Your task to perform on an android device: Open the web browser Image 0: 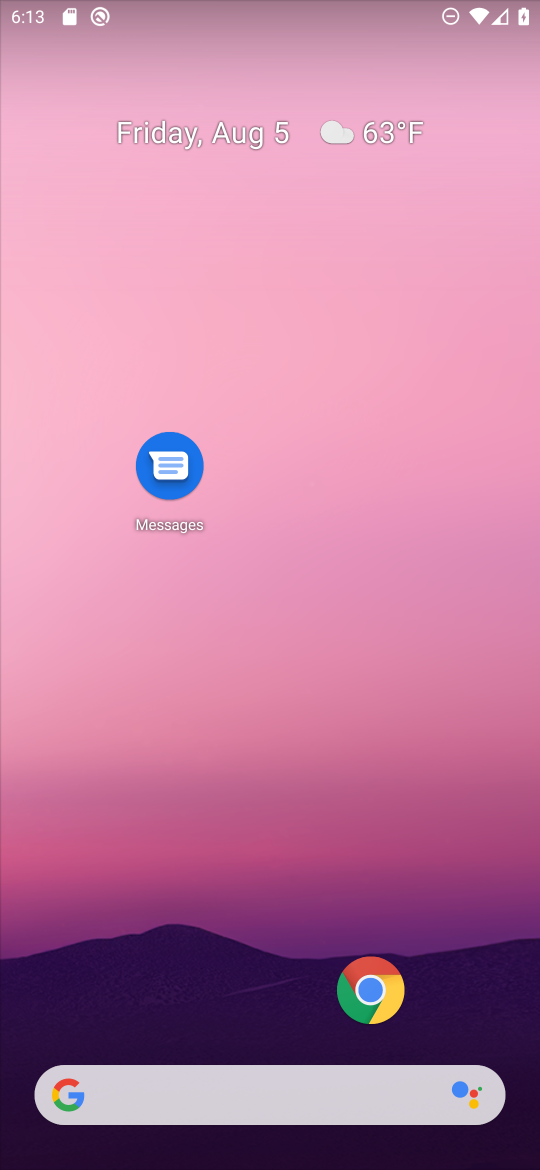
Step 0: press home button
Your task to perform on an android device: Open the web browser Image 1: 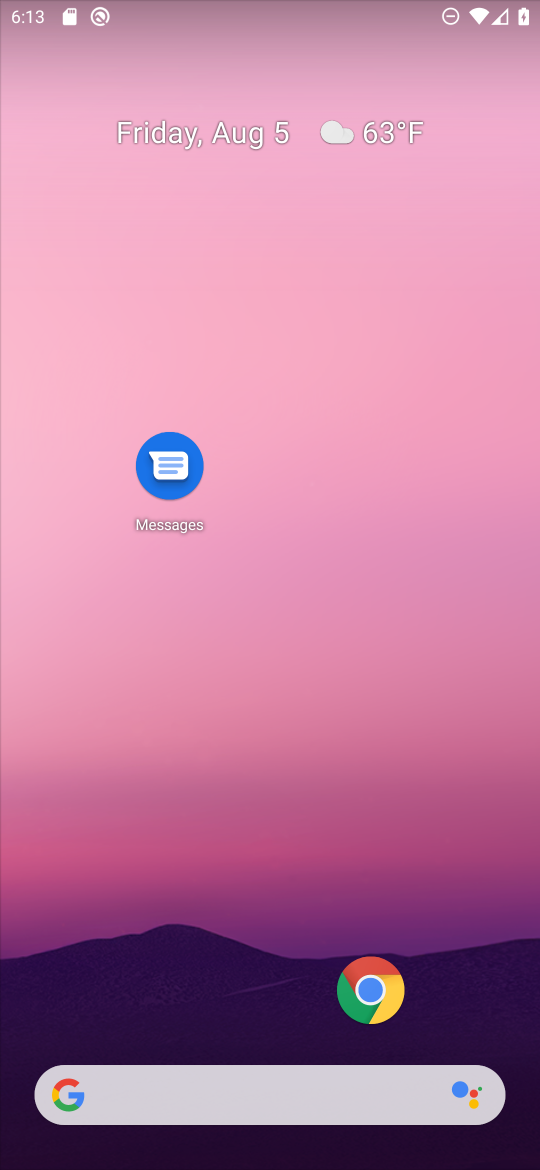
Step 1: click (349, 999)
Your task to perform on an android device: Open the web browser Image 2: 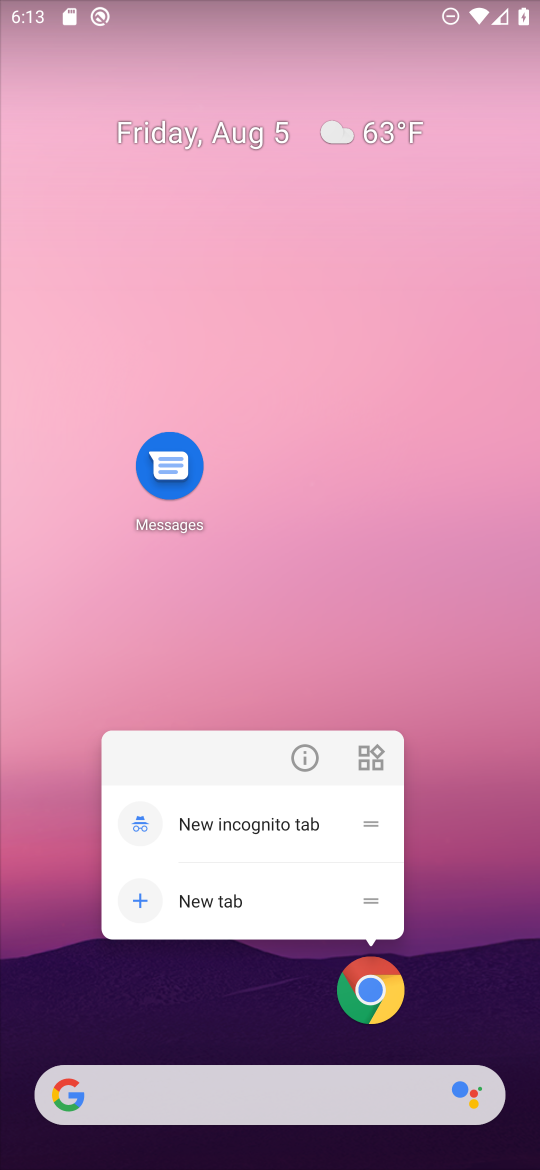
Step 2: click (384, 983)
Your task to perform on an android device: Open the web browser Image 3: 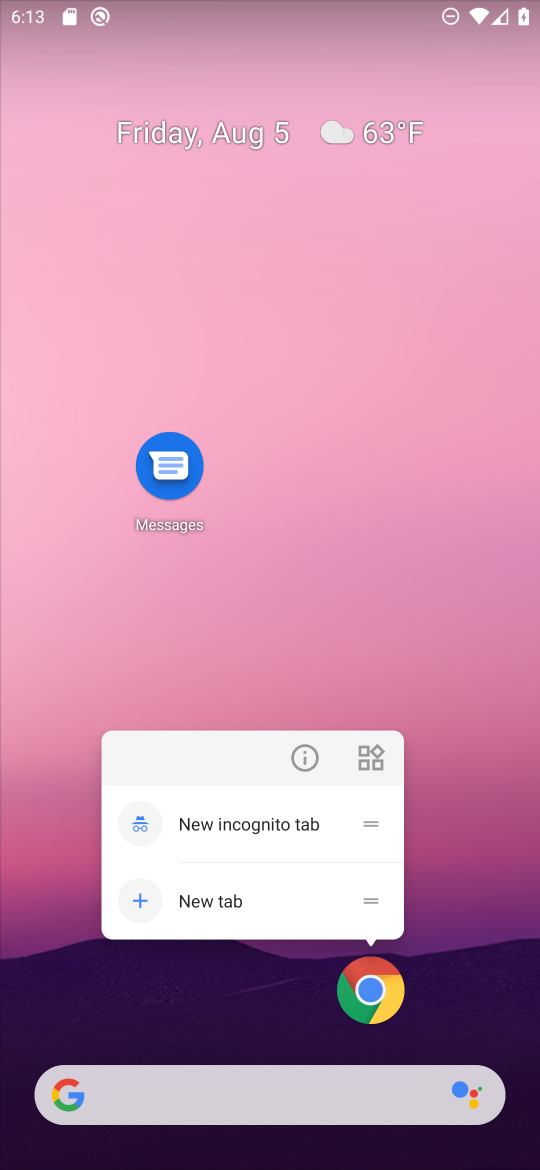
Step 3: click (363, 990)
Your task to perform on an android device: Open the web browser Image 4: 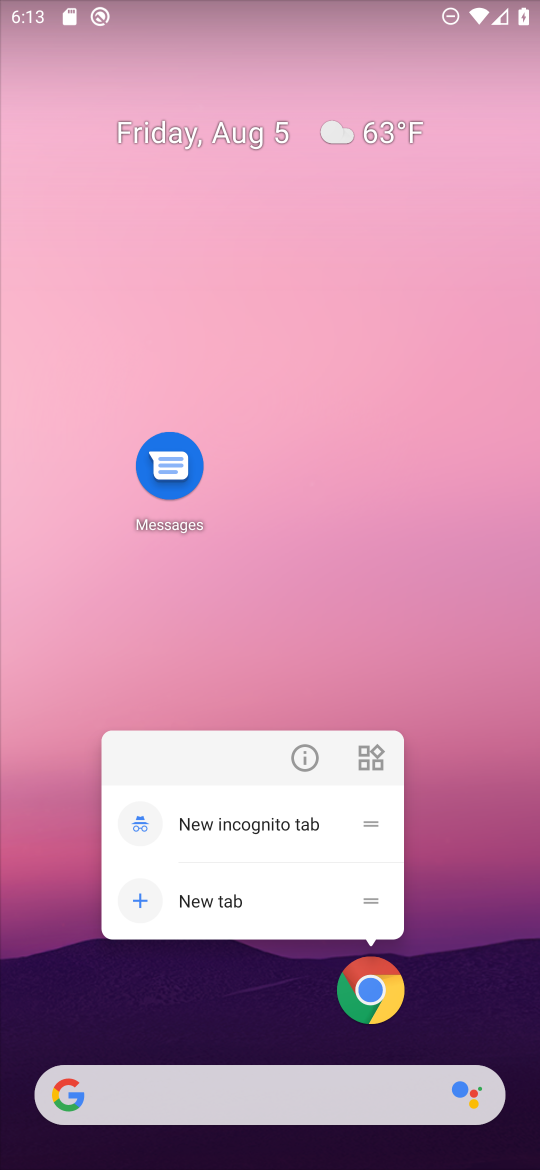
Step 4: click (380, 1005)
Your task to perform on an android device: Open the web browser Image 5: 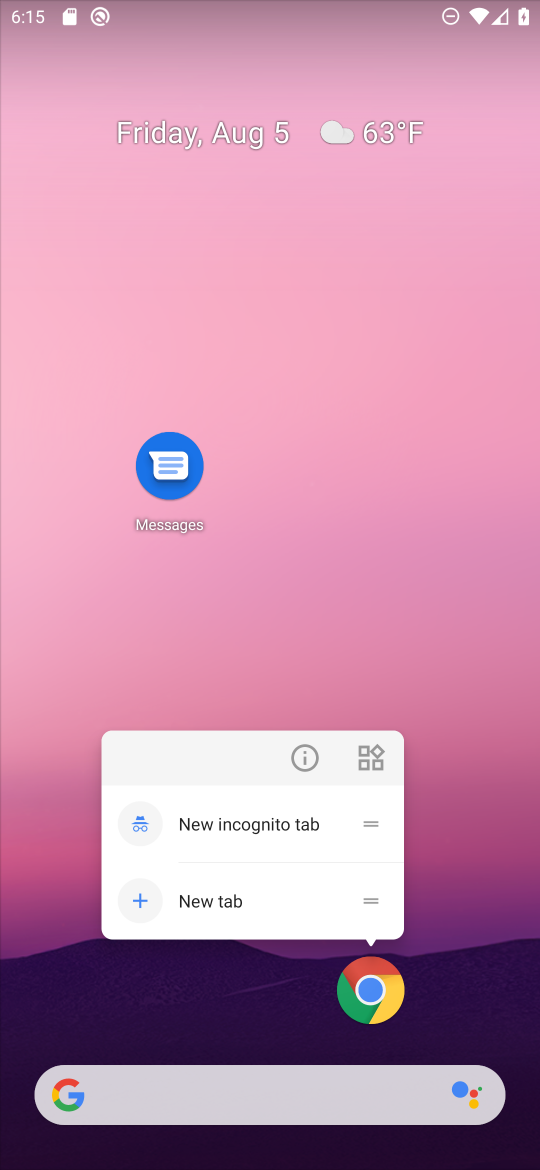
Step 5: click (372, 971)
Your task to perform on an android device: Open the web browser Image 6: 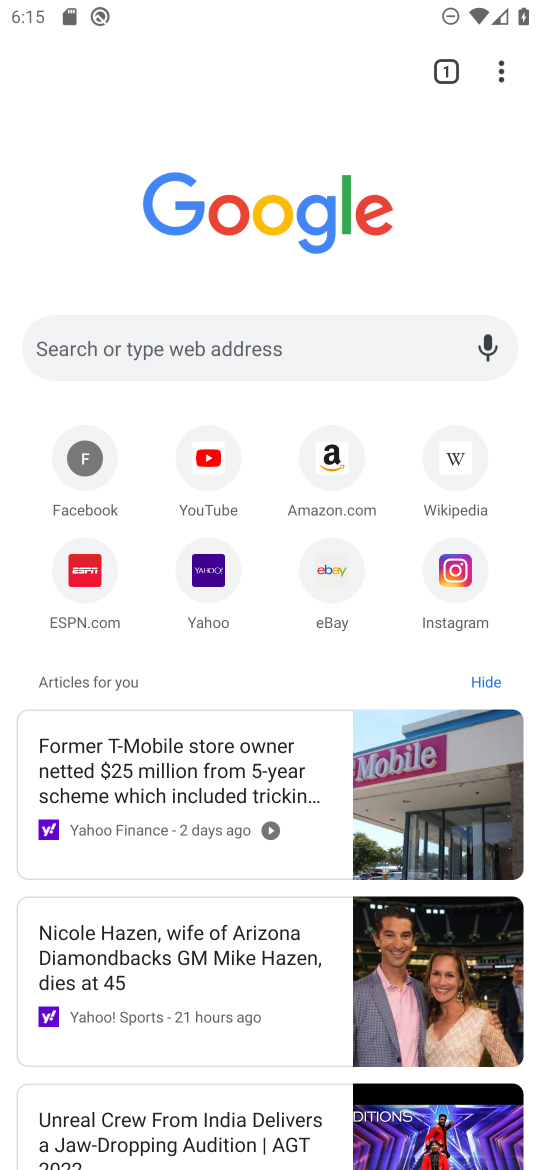
Step 6: task complete